Your task to perform on an android device: find snoozed emails in the gmail app Image 0: 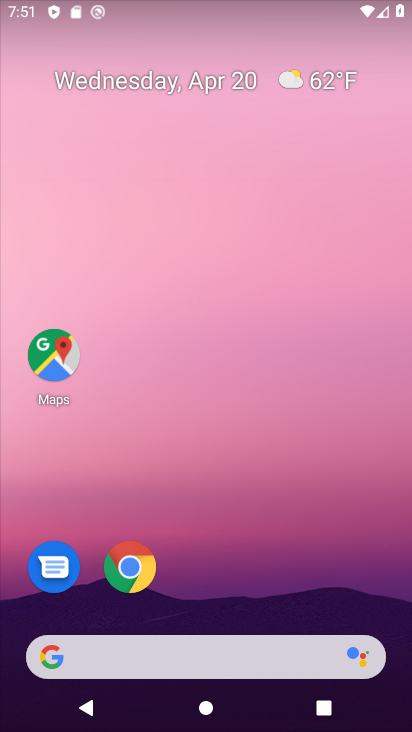
Step 0: drag from (383, 593) to (355, 20)
Your task to perform on an android device: find snoozed emails in the gmail app Image 1: 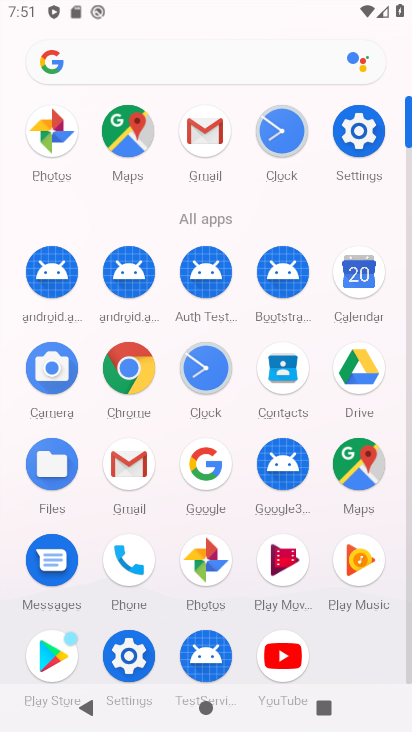
Step 1: click (186, 136)
Your task to perform on an android device: find snoozed emails in the gmail app Image 2: 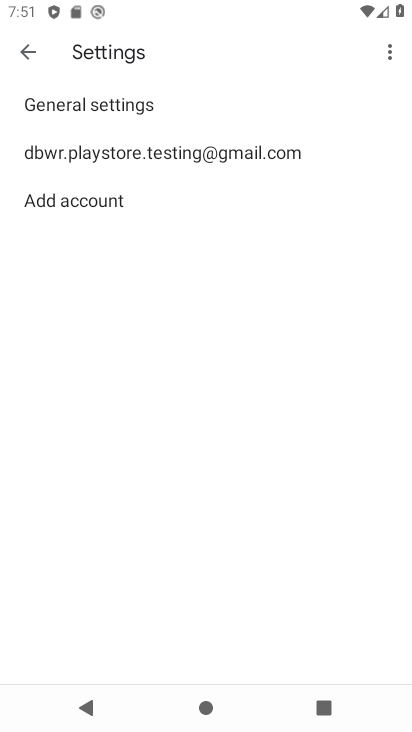
Step 2: click (26, 52)
Your task to perform on an android device: find snoozed emails in the gmail app Image 3: 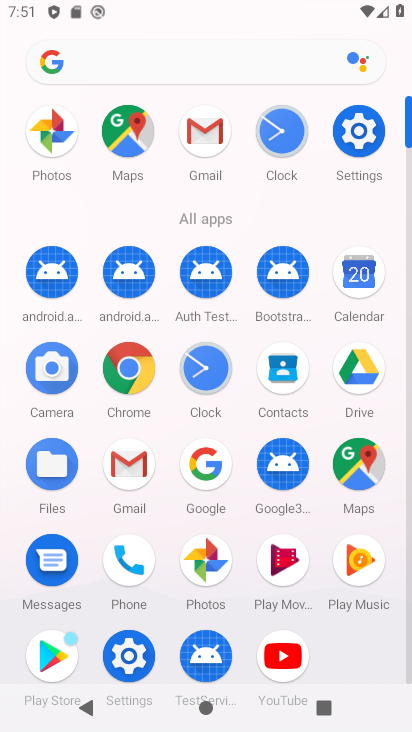
Step 3: click (199, 130)
Your task to perform on an android device: find snoozed emails in the gmail app Image 4: 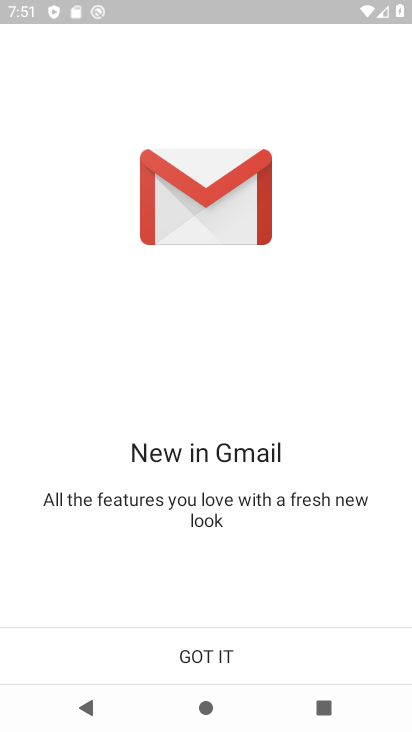
Step 4: click (208, 648)
Your task to perform on an android device: find snoozed emails in the gmail app Image 5: 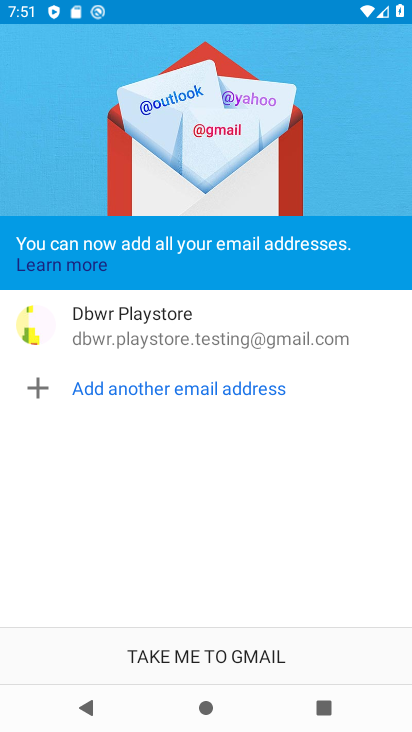
Step 5: click (208, 648)
Your task to perform on an android device: find snoozed emails in the gmail app Image 6: 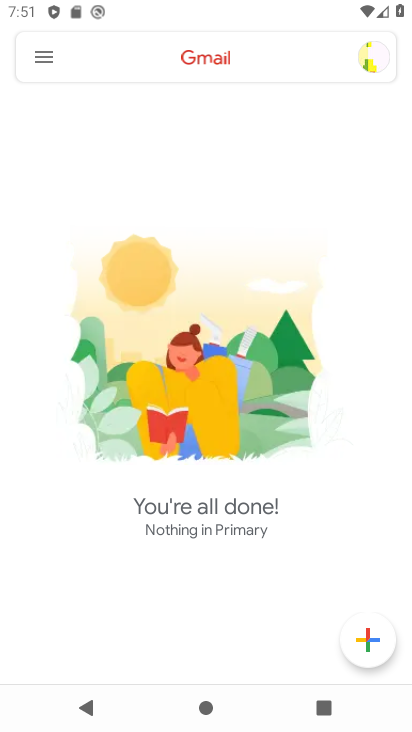
Step 6: click (40, 58)
Your task to perform on an android device: find snoozed emails in the gmail app Image 7: 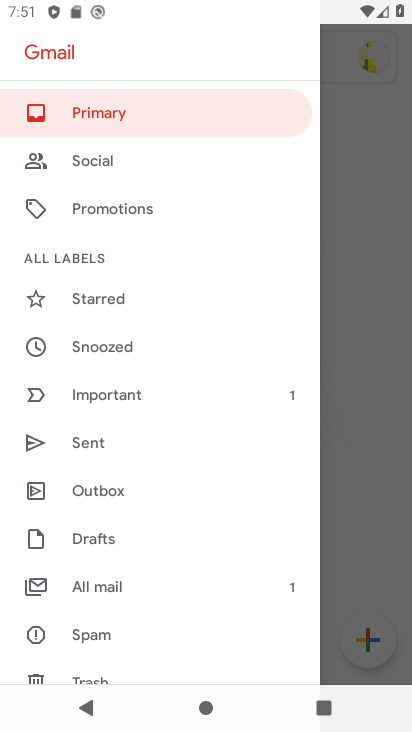
Step 7: click (95, 344)
Your task to perform on an android device: find snoozed emails in the gmail app Image 8: 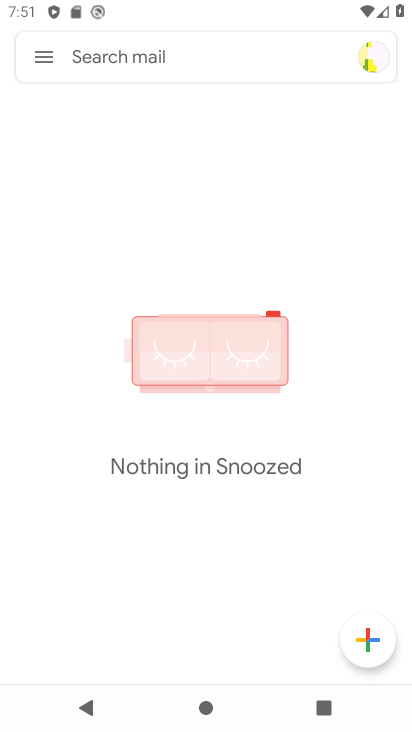
Step 8: task complete